Your task to perform on an android device: turn off notifications settings in the gmail app Image 0: 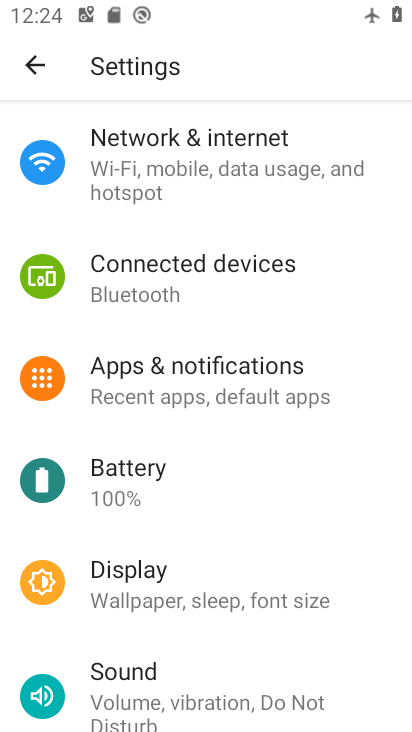
Step 0: press home button
Your task to perform on an android device: turn off notifications settings in the gmail app Image 1: 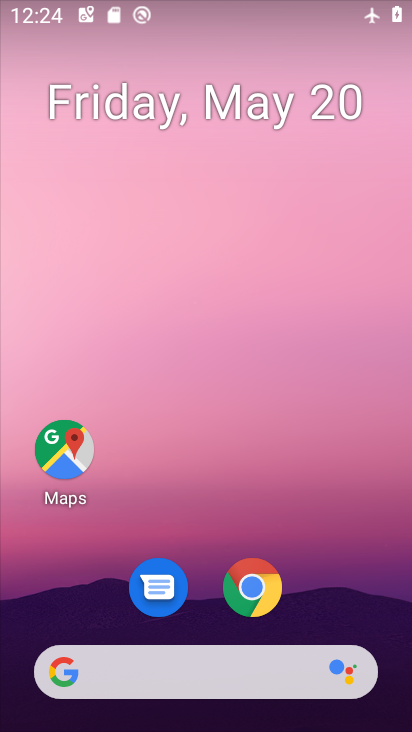
Step 1: drag from (354, 537) to (362, 149)
Your task to perform on an android device: turn off notifications settings in the gmail app Image 2: 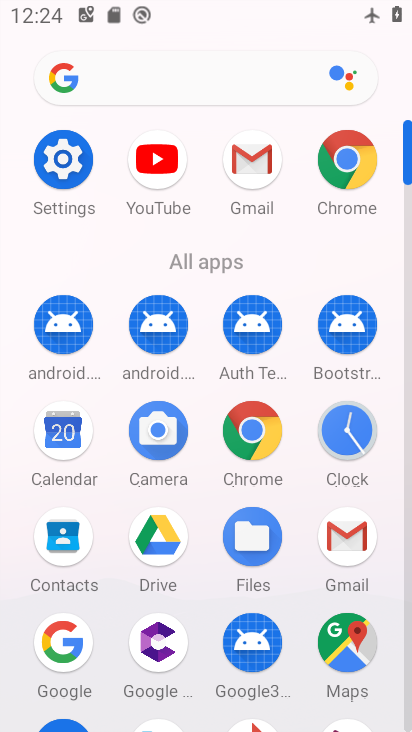
Step 2: click (356, 543)
Your task to perform on an android device: turn off notifications settings in the gmail app Image 3: 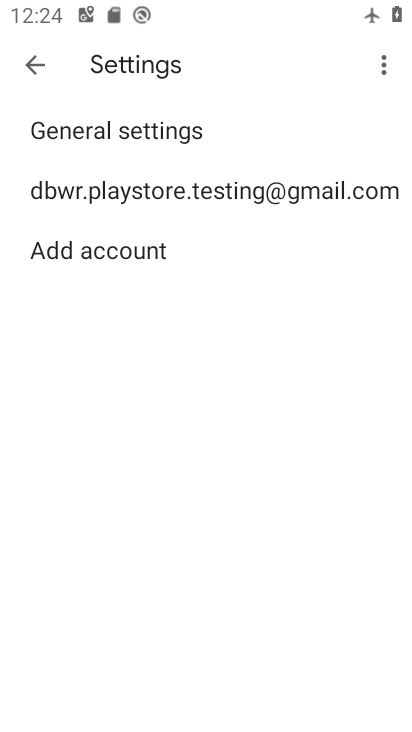
Step 3: click (268, 187)
Your task to perform on an android device: turn off notifications settings in the gmail app Image 4: 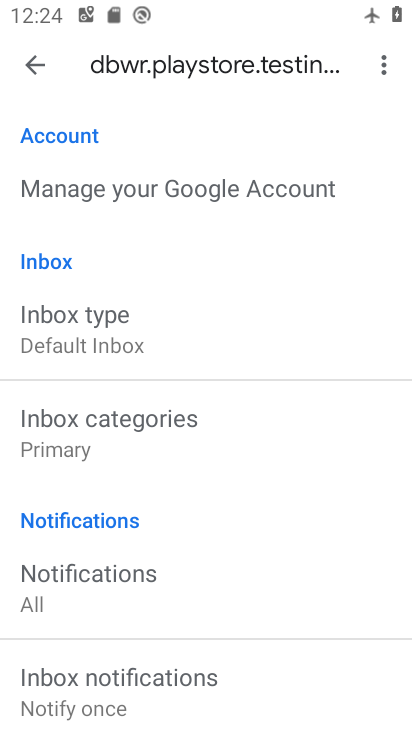
Step 4: drag from (302, 497) to (304, 403)
Your task to perform on an android device: turn off notifications settings in the gmail app Image 5: 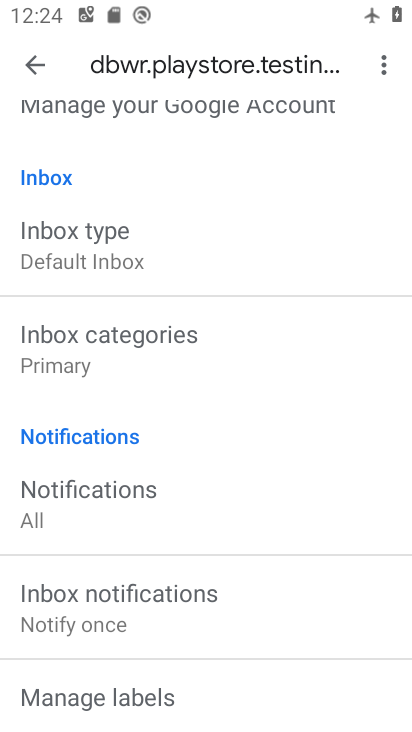
Step 5: drag from (323, 523) to (323, 436)
Your task to perform on an android device: turn off notifications settings in the gmail app Image 6: 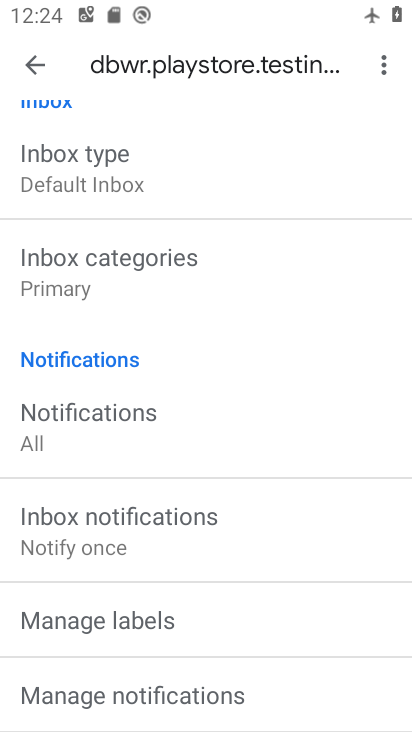
Step 6: drag from (318, 520) to (317, 444)
Your task to perform on an android device: turn off notifications settings in the gmail app Image 7: 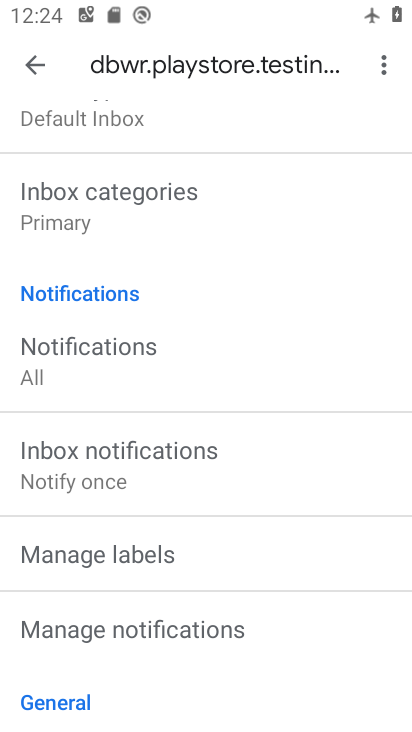
Step 7: drag from (330, 532) to (330, 442)
Your task to perform on an android device: turn off notifications settings in the gmail app Image 8: 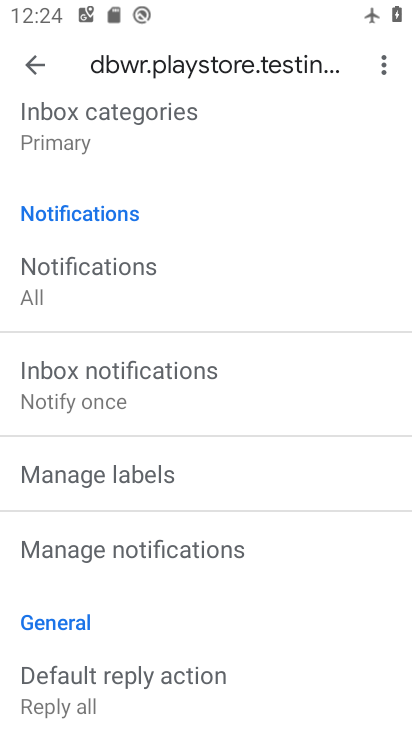
Step 8: drag from (342, 539) to (342, 477)
Your task to perform on an android device: turn off notifications settings in the gmail app Image 9: 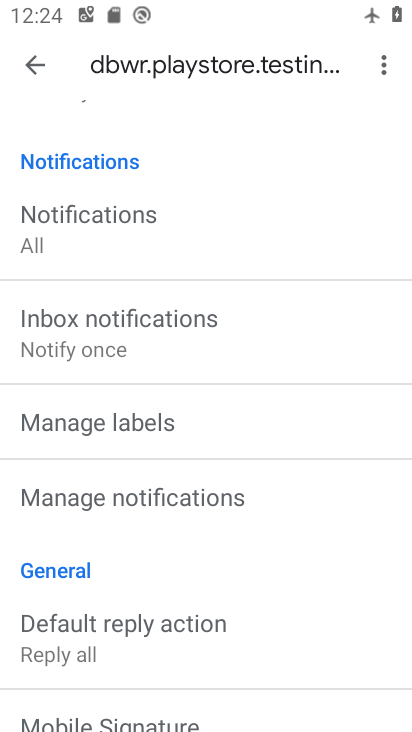
Step 9: drag from (348, 529) to (348, 439)
Your task to perform on an android device: turn off notifications settings in the gmail app Image 10: 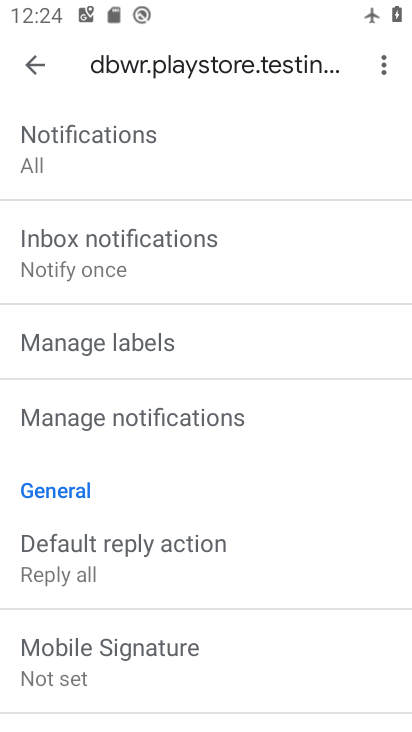
Step 10: drag from (346, 530) to (346, 481)
Your task to perform on an android device: turn off notifications settings in the gmail app Image 11: 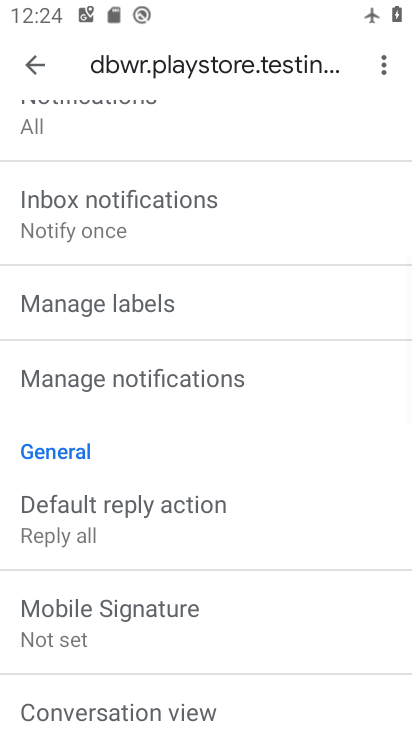
Step 11: drag from (346, 552) to (346, 490)
Your task to perform on an android device: turn off notifications settings in the gmail app Image 12: 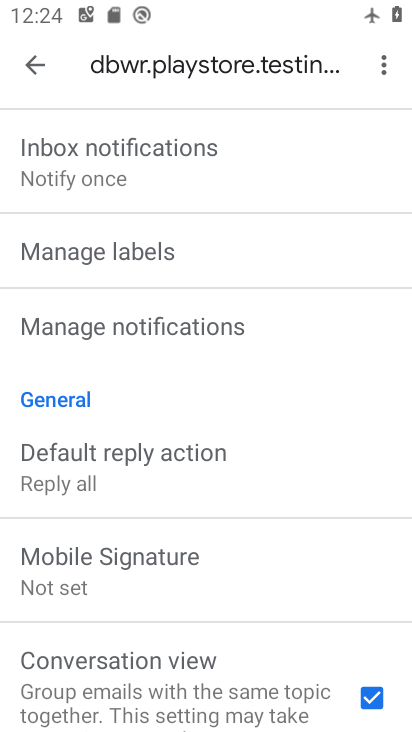
Step 12: drag from (350, 552) to (350, 479)
Your task to perform on an android device: turn off notifications settings in the gmail app Image 13: 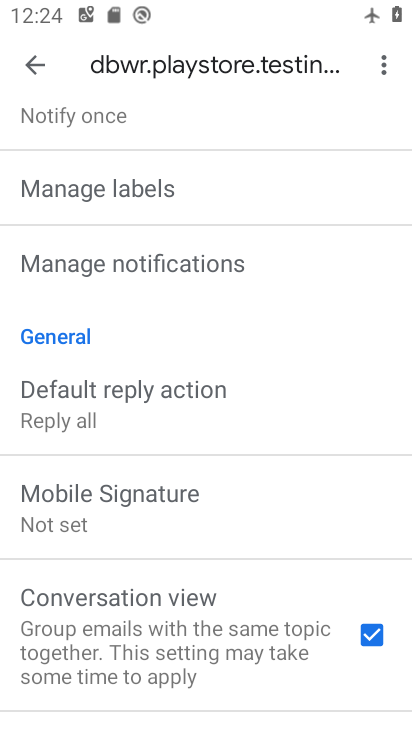
Step 13: drag from (347, 556) to (343, 438)
Your task to perform on an android device: turn off notifications settings in the gmail app Image 14: 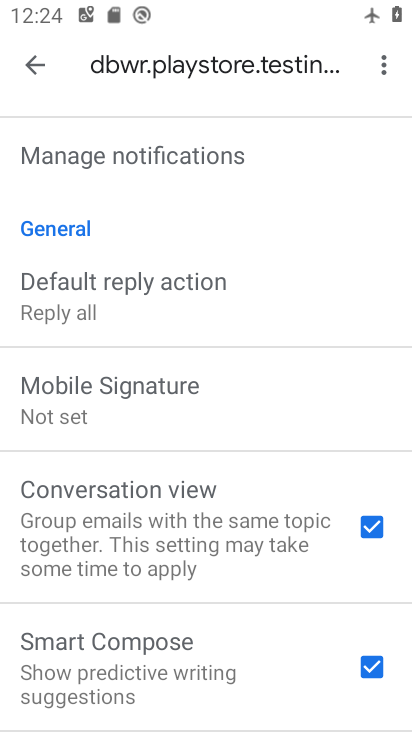
Step 14: drag from (310, 607) to (310, 504)
Your task to perform on an android device: turn off notifications settings in the gmail app Image 15: 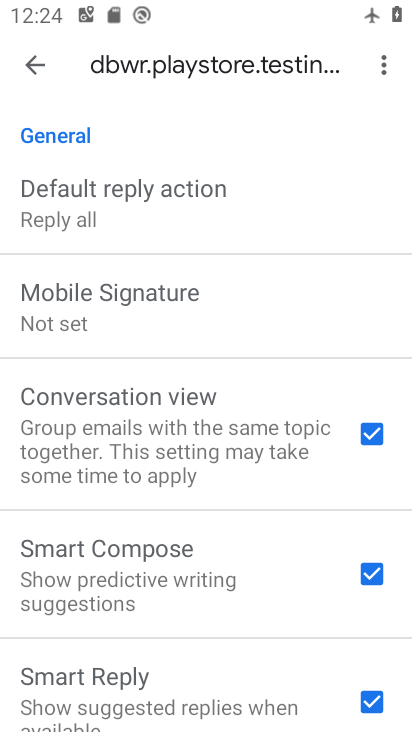
Step 15: drag from (315, 635) to (315, 529)
Your task to perform on an android device: turn off notifications settings in the gmail app Image 16: 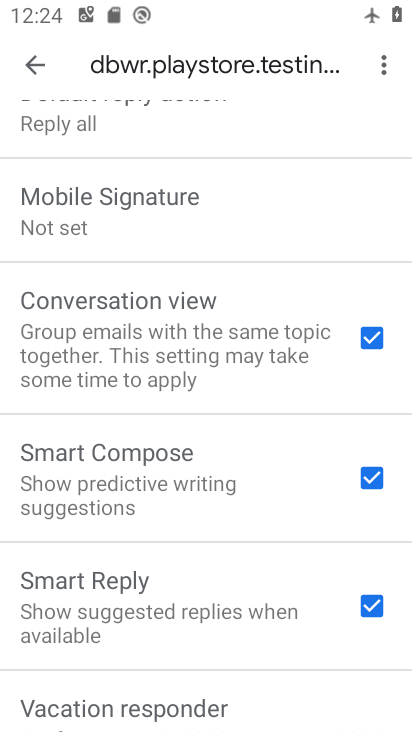
Step 16: drag from (309, 647) to (303, 546)
Your task to perform on an android device: turn off notifications settings in the gmail app Image 17: 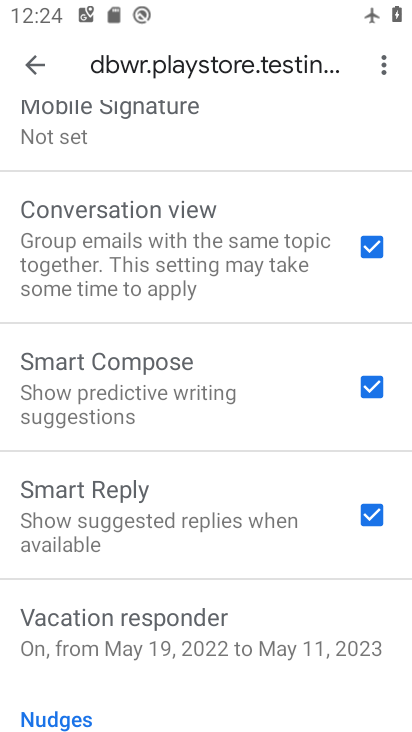
Step 17: drag from (291, 374) to (295, 485)
Your task to perform on an android device: turn off notifications settings in the gmail app Image 18: 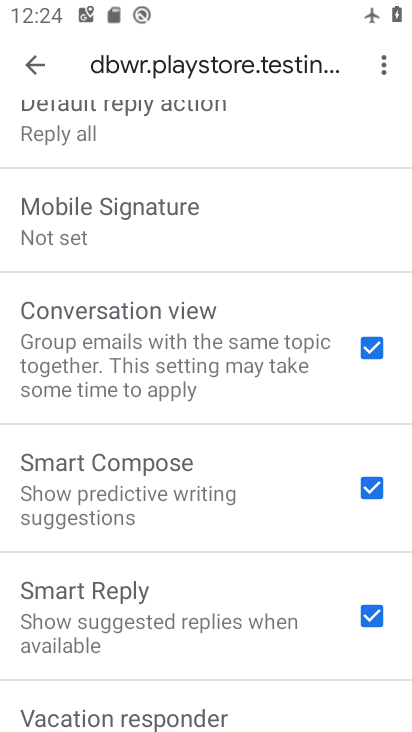
Step 18: drag from (291, 367) to (304, 459)
Your task to perform on an android device: turn off notifications settings in the gmail app Image 19: 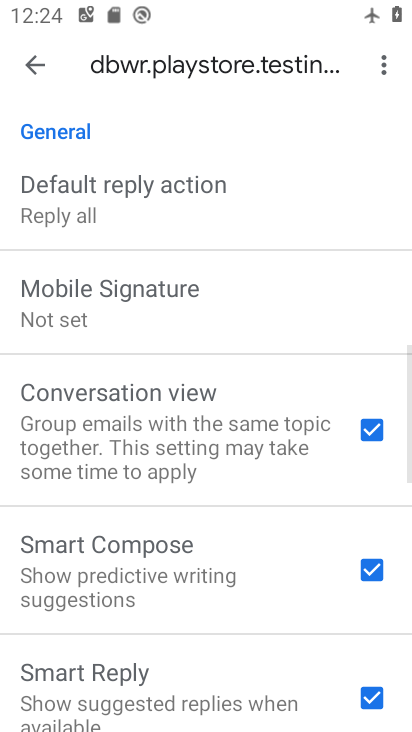
Step 19: drag from (305, 324) to (307, 440)
Your task to perform on an android device: turn off notifications settings in the gmail app Image 20: 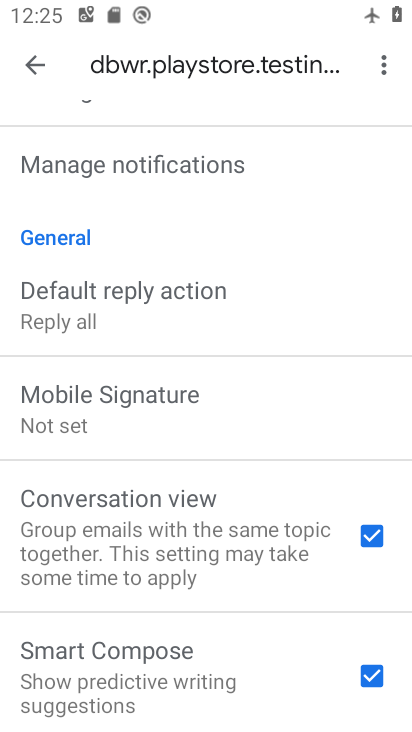
Step 20: drag from (296, 341) to (298, 447)
Your task to perform on an android device: turn off notifications settings in the gmail app Image 21: 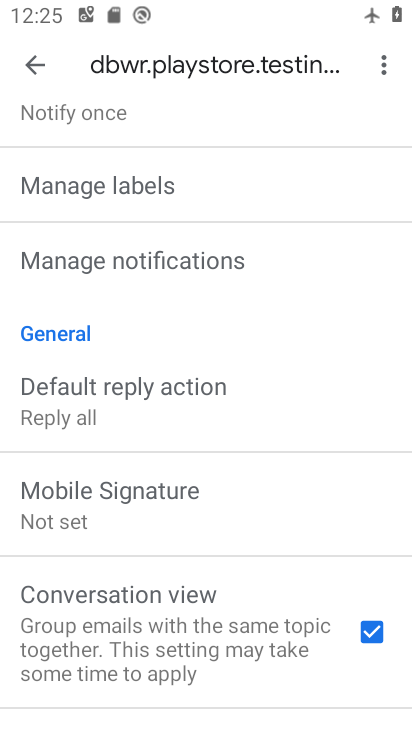
Step 21: drag from (295, 327) to (301, 443)
Your task to perform on an android device: turn off notifications settings in the gmail app Image 22: 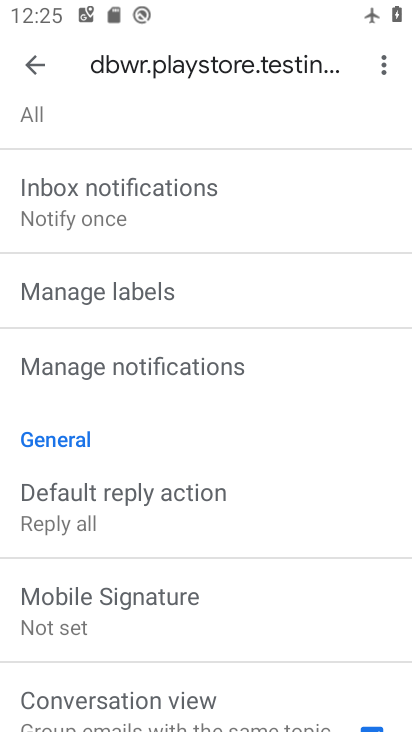
Step 22: drag from (277, 383) to (280, 453)
Your task to perform on an android device: turn off notifications settings in the gmail app Image 23: 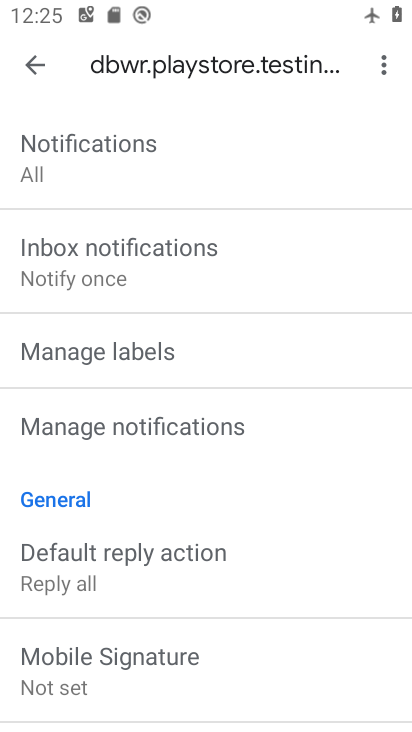
Step 23: click (254, 425)
Your task to perform on an android device: turn off notifications settings in the gmail app Image 24: 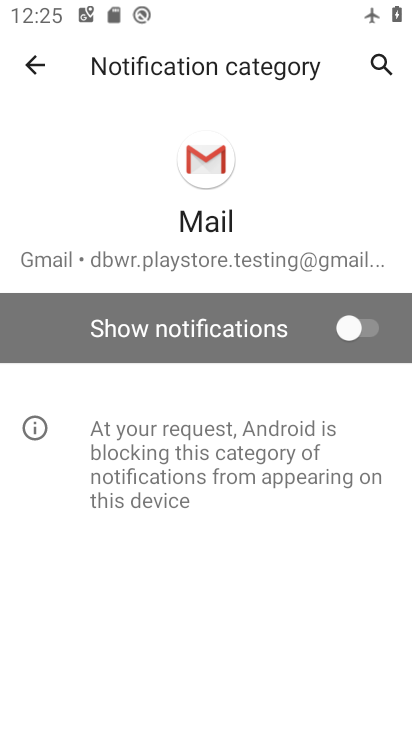
Step 24: task complete